Your task to perform on an android device: Open Google Image 0: 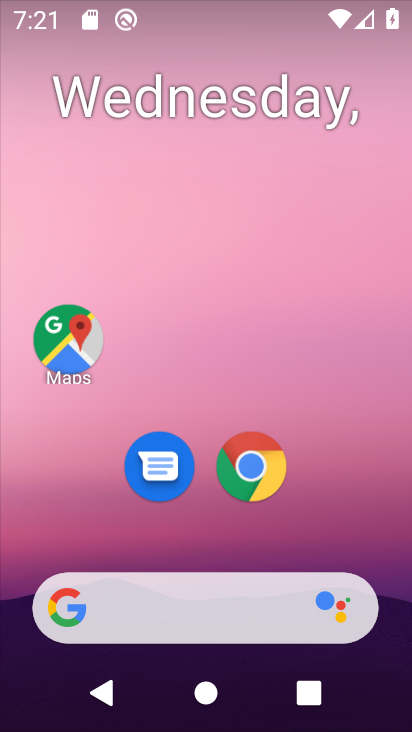
Step 0: drag from (346, 548) to (381, 170)
Your task to perform on an android device: Open Google Image 1: 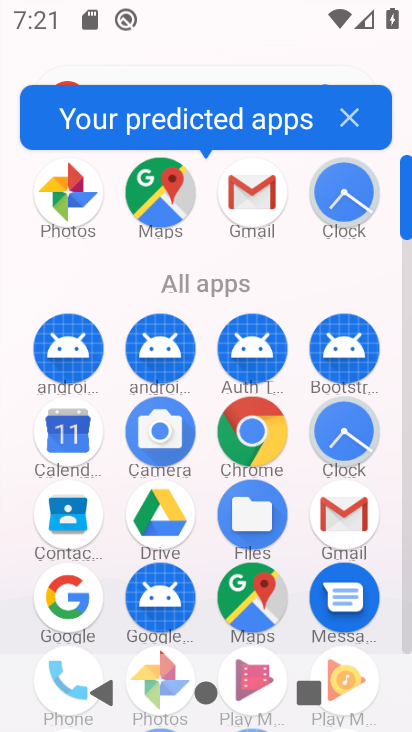
Step 1: click (77, 594)
Your task to perform on an android device: Open Google Image 2: 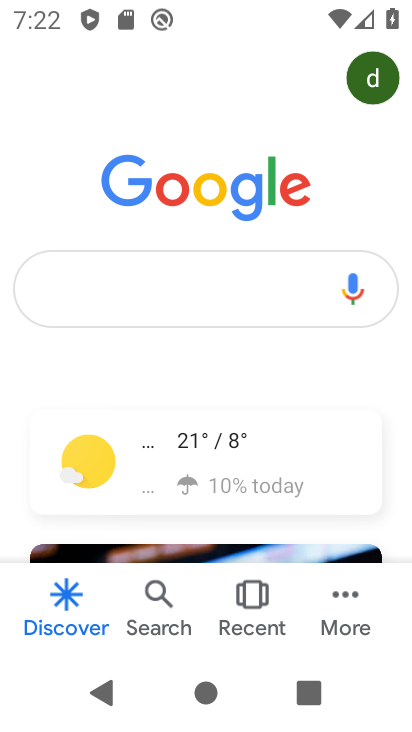
Step 2: task complete